Your task to perform on an android device: add a contact in the contacts app Image 0: 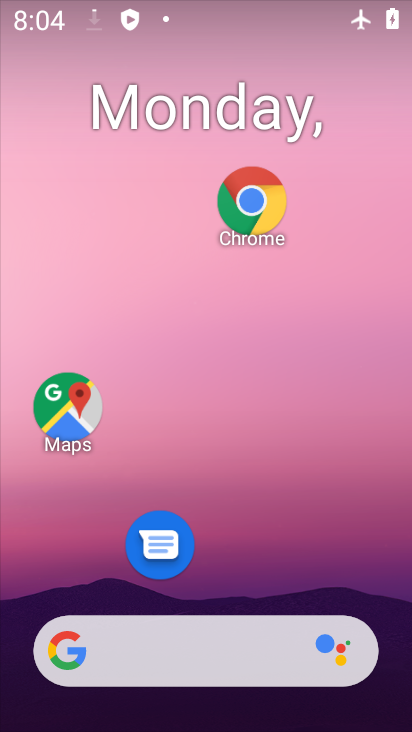
Step 0: drag from (273, 593) to (309, 103)
Your task to perform on an android device: add a contact in the contacts app Image 1: 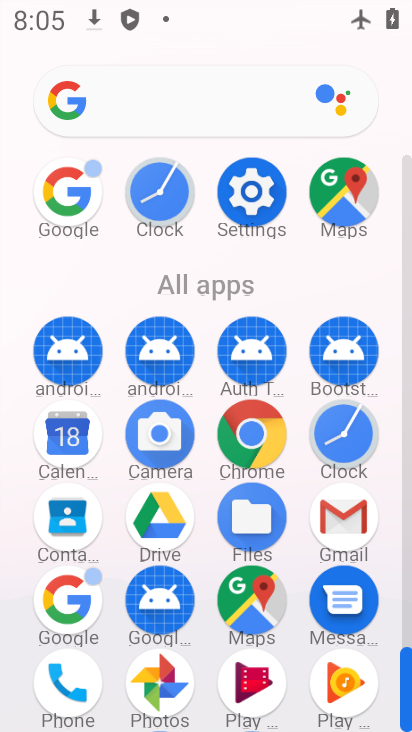
Step 1: click (76, 500)
Your task to perform on an android device: add a contact in the contacts app Image 2: 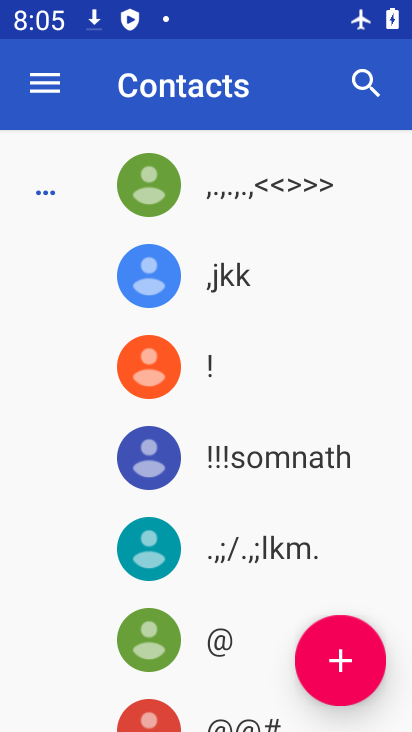
Step 2: click (347, 673)
Your task to perform on an android device: add a contact in the contacts app Image 3: 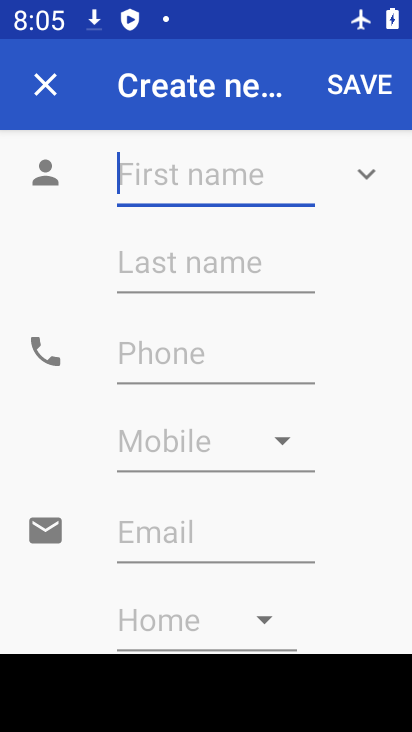
Step 3: type "cghhg"
Your task to perform on an android device: add a contact in the contacts app Image 4: 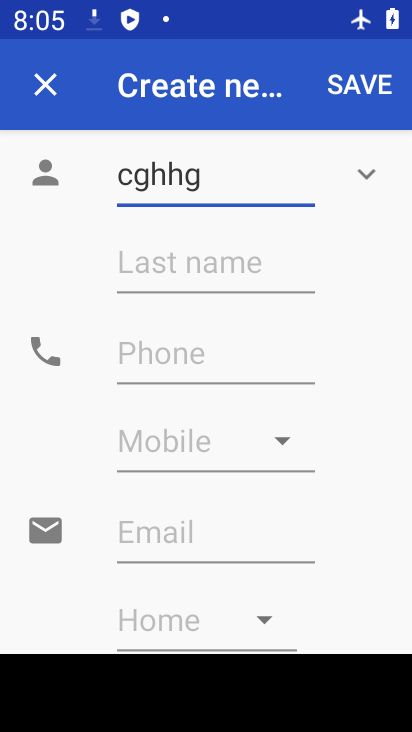
Step 4: click (234, 365)
Your task to perform on an android device: add a contact in the contacts app Image 5: 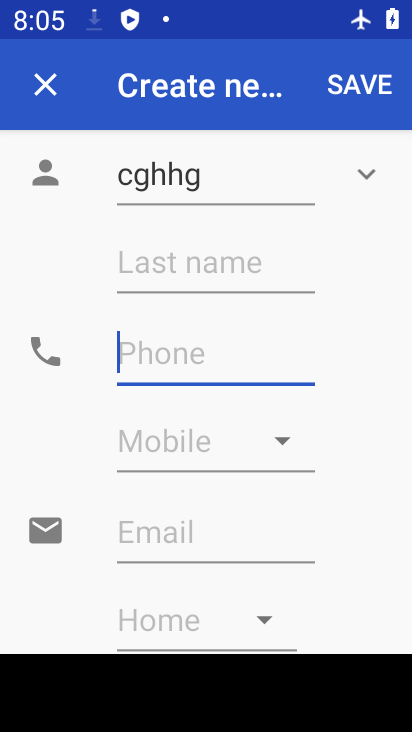
Step 5: type "9868768965"
Your task to perform on an android device: add a contact in the contacts app Image 6: 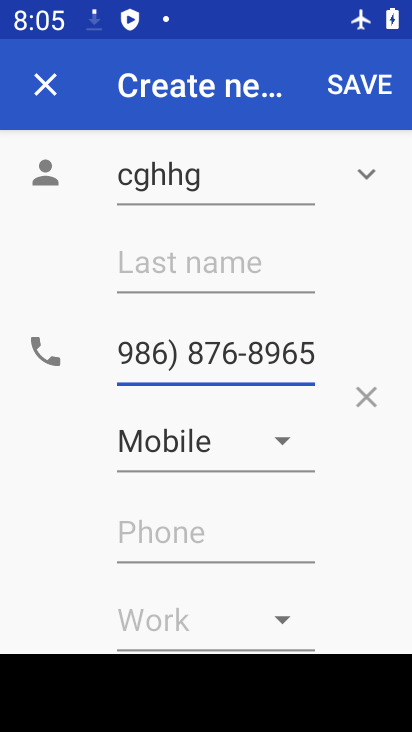
Step 6: click (344, 83)
Your task to perform on an android device: add a contact in the contacts app Image 7: 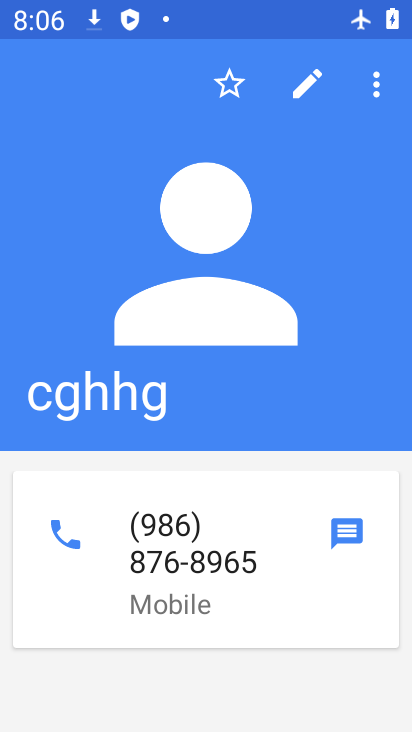
Step 7: task complete